Your task to perform on an android device: What's the weather going to be this weekend? Image 0: 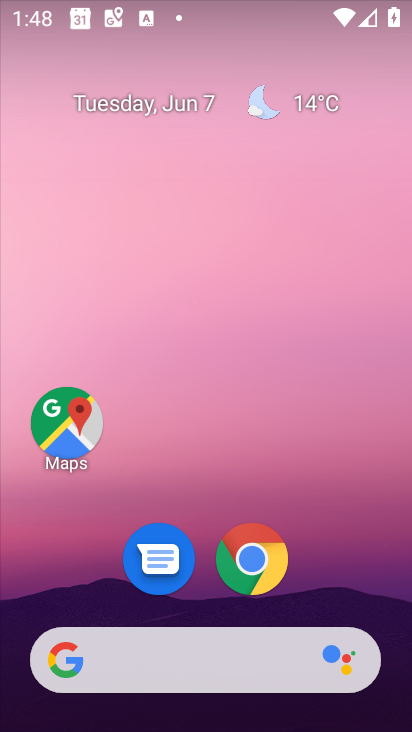
Step 0: click (126, 664)
Your task to perform on an android device: What's the weather going to be this weekend? Image 1: 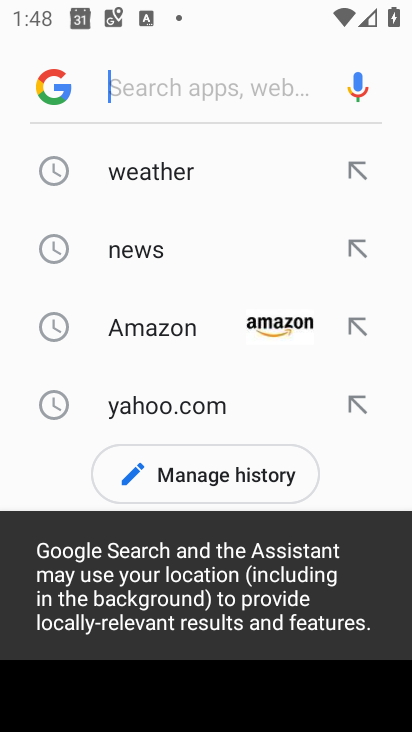
Step 1: click (159, 171)
Your task to perform on an android device: What's the weather going to be this weekend? Image 2: 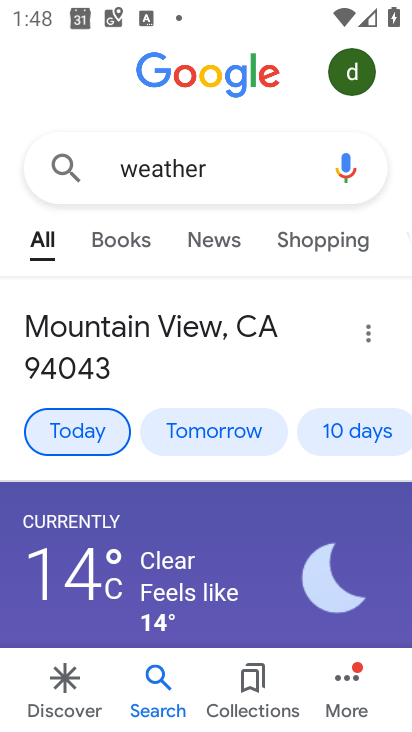
Step 2: click (331, 438)
Your task to perform on an android device: What's the weather going to be this weekend? Image 3: 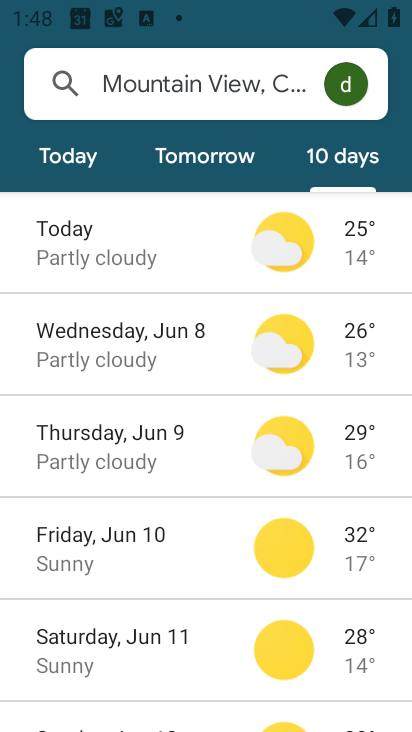
Step 3: task complete